Your task to perform on an android device: What is the news today? Image 0: 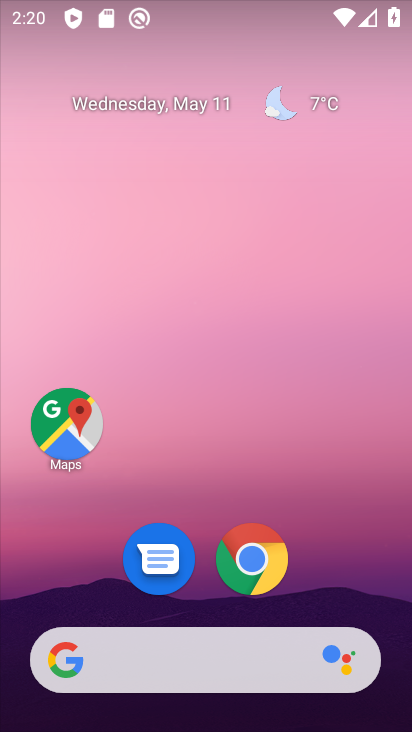
Step 0: drag from (332, 558) to (191, 50)
Your task to perform on an android device: What is the news today? Image 1: 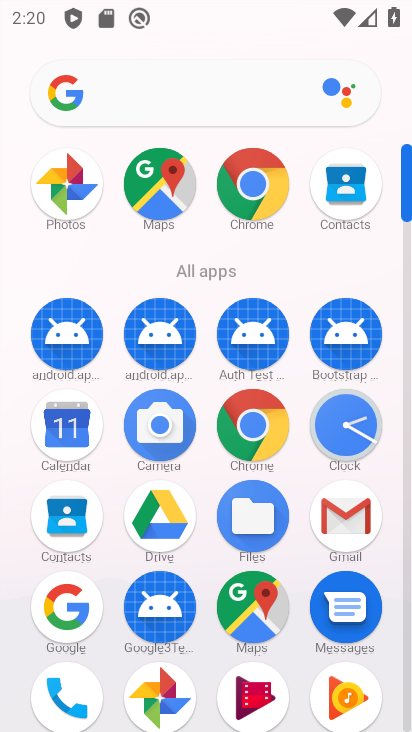
Step 1: click (73, 610)
Your task to perform on an android device: What is the news today? Image 2: 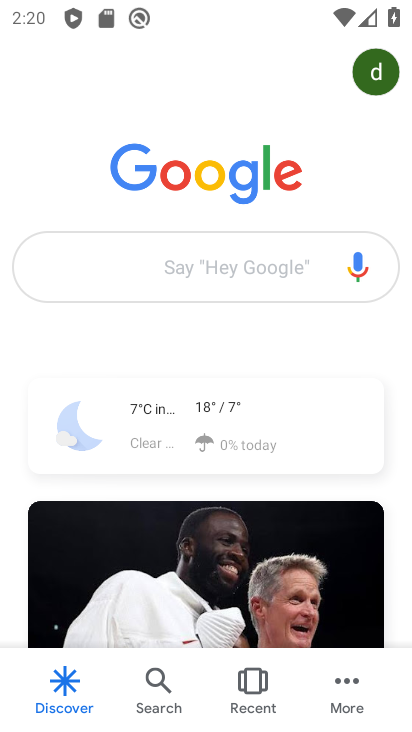
Step 2: task complete